Your task to perform on an android device: When is my next meeting? Image 0: 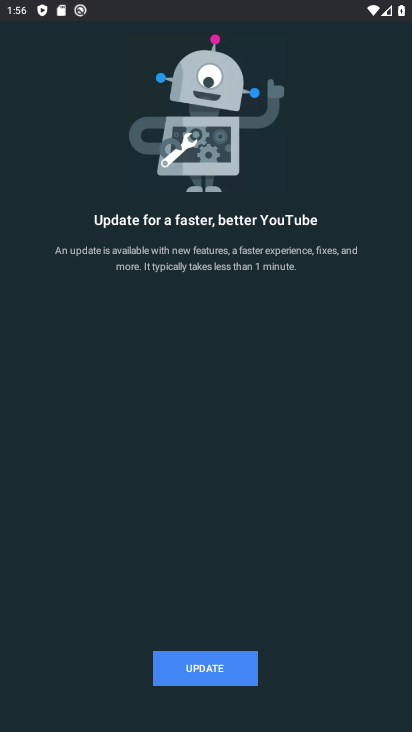
Step 0: press home button
Your task to perform on an android device: When is my next meeting? Image 1: 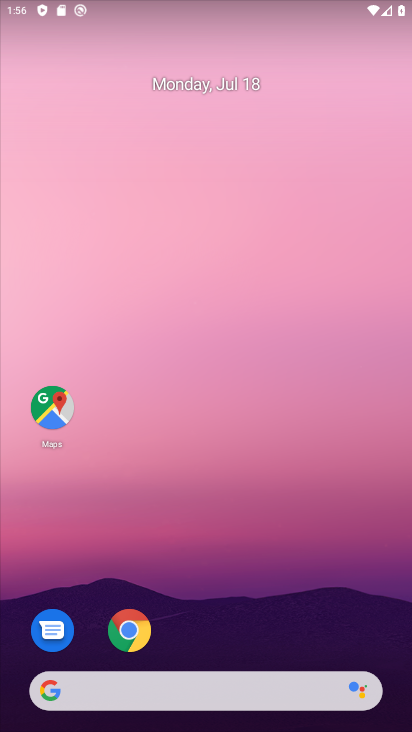
Step 1: drag from (377, 658) to (317, 123)
Your task to perform on an android device: When is my next meeting? Image 2: 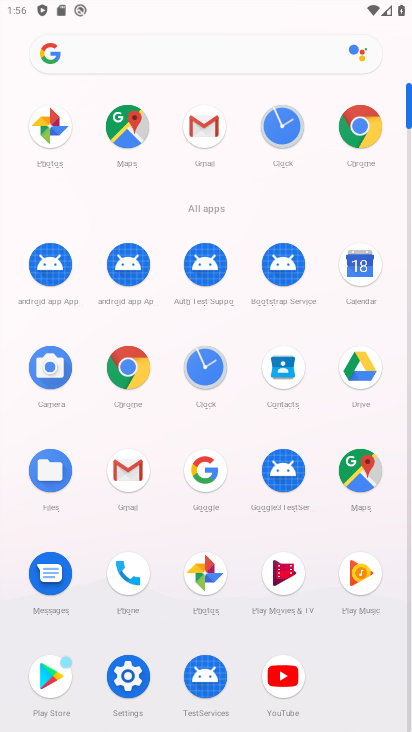
Step 2: click (361, 258)
Your task to perform on an android device: When is my next meeting? Image 3: 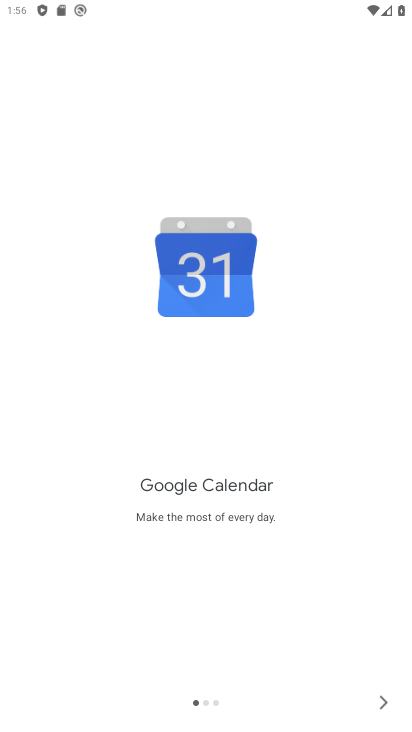
Step 3: click (380, 693)
Your task to perform on an android device: When is my next meeting? Image 4: 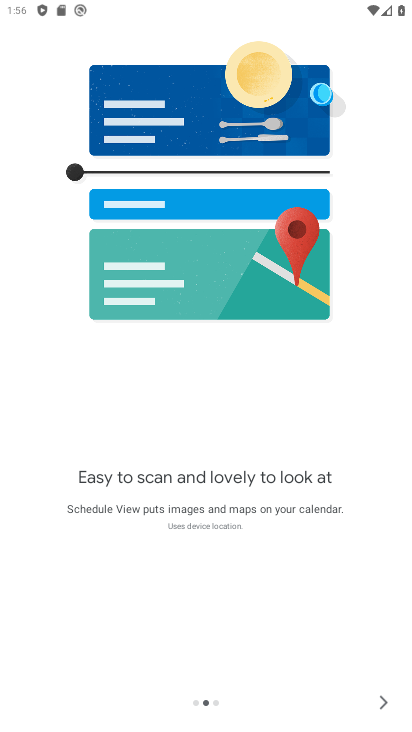
Step 4: click (379, 691)
Your task to perform on an android device: When is my next meeting? Image 5: 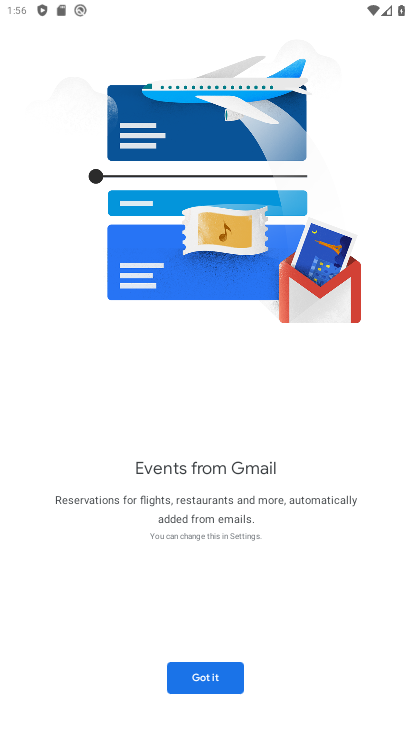
Step 5: click (203, 675)
Your task to perform on an android device: When is my next meeting? Image 6: 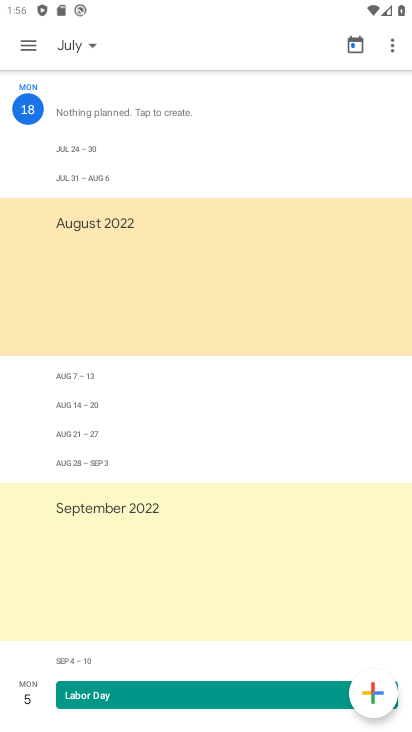
Step 6: click (26, 40)
Your task to perform on an android device: When is my next meeting? Image 7: 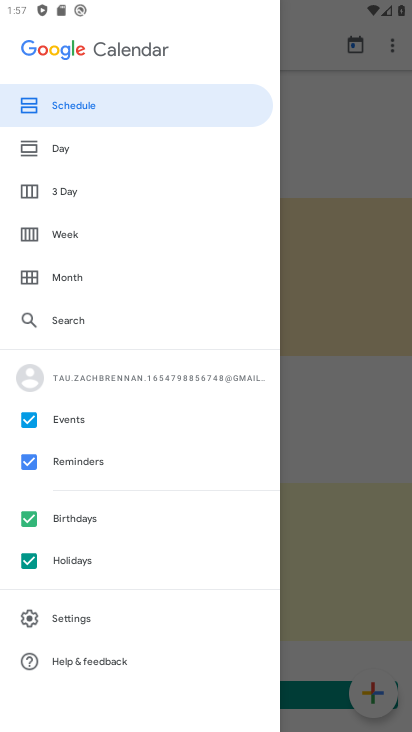
Step 7: click (297, 286)
Your task to perform on an android device: When is my next meeting? Image 8: 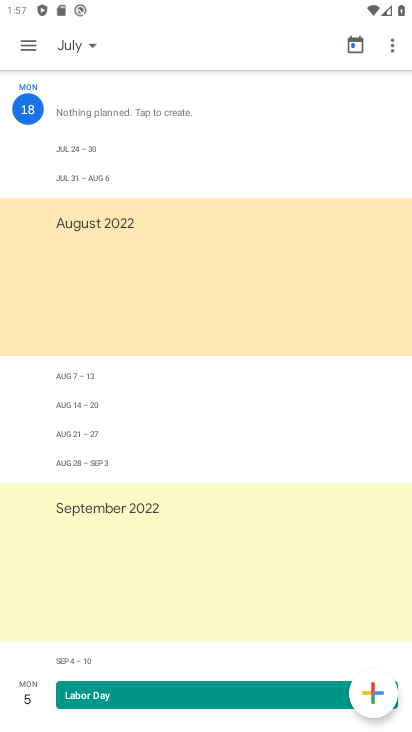
Step 8: task complete